Your task to perform on an android device: Open the Play Movies app and select the watchlist tab. Image 0: 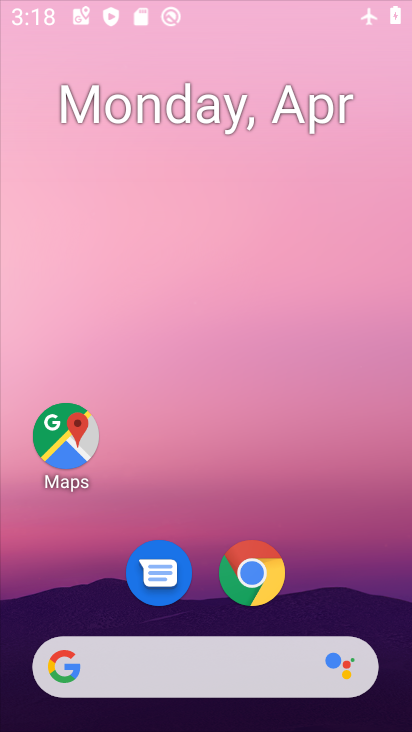
Step 0: click (351, 59)
Your task to perform on an android device: Open the Play Movies app and select the watchlist tab. Image 1: 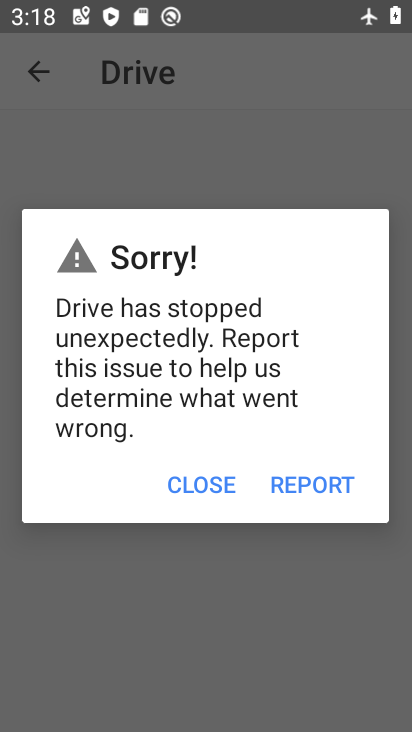
Step 1: press home button
Your task to perform on an android device: Open the Play Movies app and select the watchlist tab. Image 2: 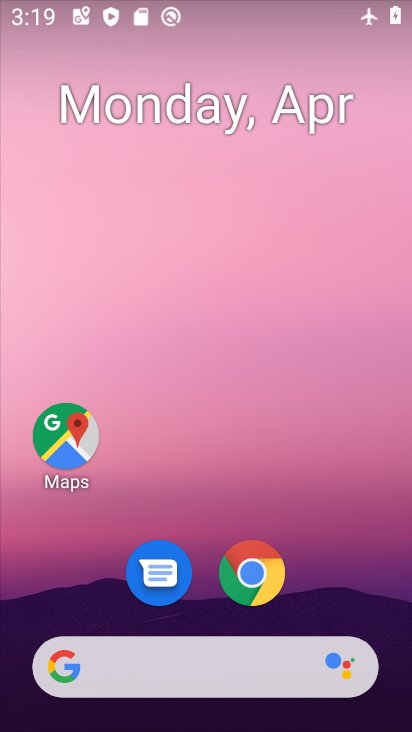
Step 2: drag from (365, 589) to (365, 74)
Your task to perform on an android device: Open the Play Movies app and select the watchlist tab. Image 3: 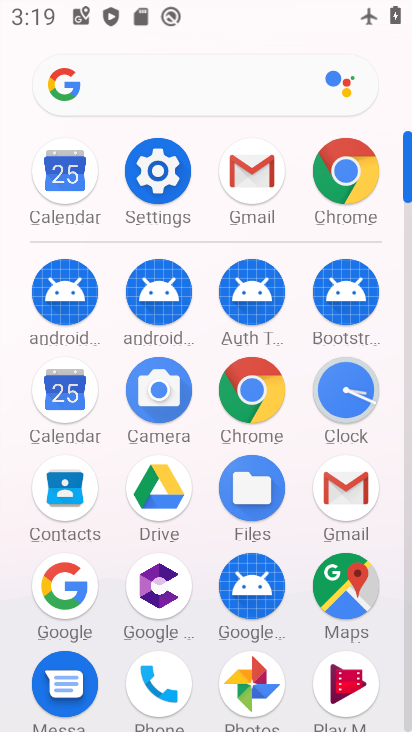
Step 3: drag from (195, 652) to (207, 402)
Your task to perform on an android device: Open the Play Movies app and select the watchlist tab. Image 4: 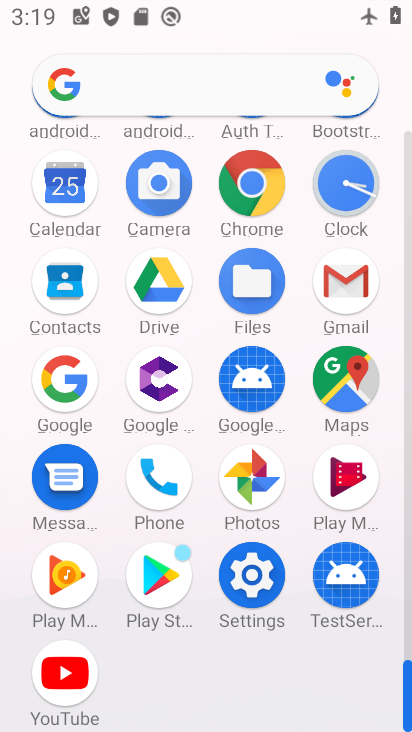
Step 4: click (347, 483)
Your task to perform on an android device: Open the Play Movies app and select the watchlist tab. Image 5: 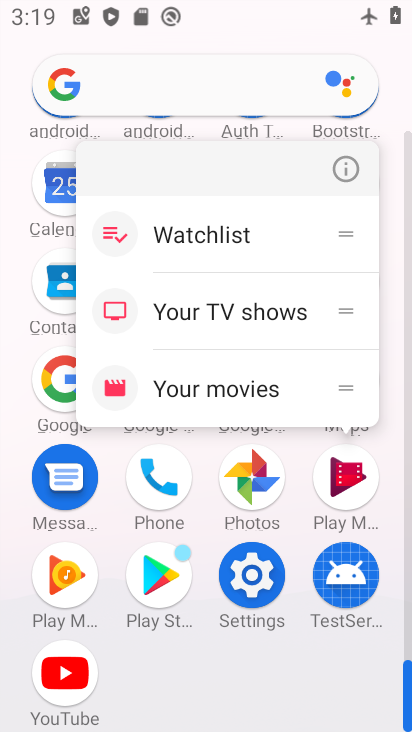
Step 5: click (351, 494)
Your task to perform on an android device: Open the Play Movies app and select the watchlist tab. Image 6: 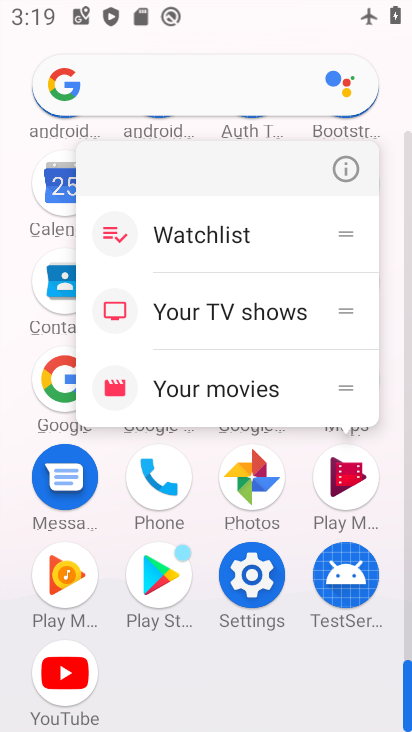
Step 6: click (196, 226)
Your task to perform on an android device: Open the Play Movies app and select the watchlist tab. Image 7: 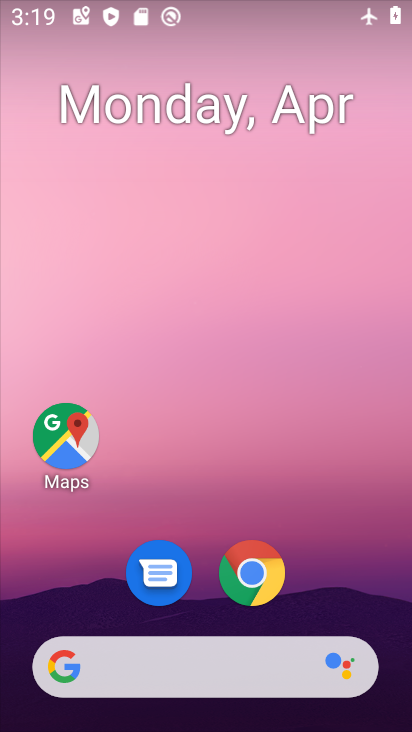
Step 7: drag from (342, 584) to (378, 108)
Your task to perform on an android device: Open the Play Movies app and select the watchlist tab. Image 8: 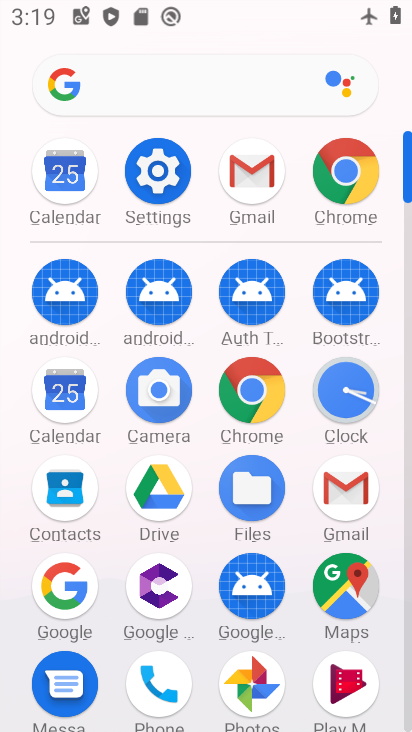
Step 8: drag from (199, 534) to (203, 278)
Your task to perform on an android device: Open the Play Movies app and select the watchlist tab. Image 9: 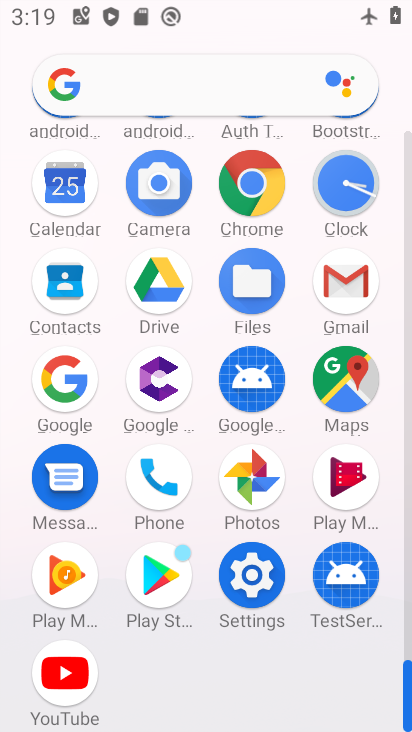
Step 9: click (340, 480)
Your task to perform on an android device: Open the Play Movies app and select the watchlist tab. Image 10: 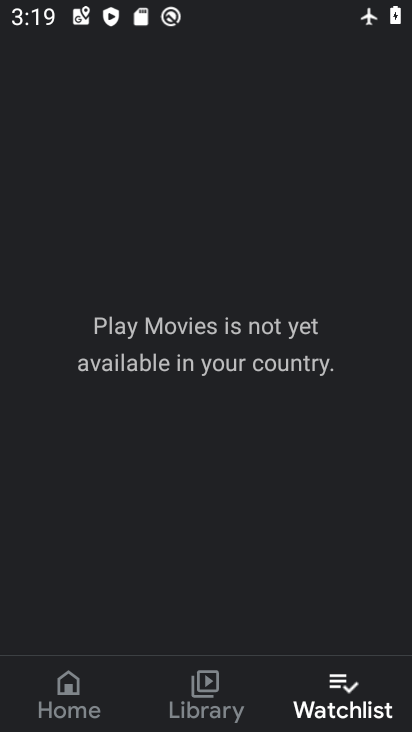
Step 10: task complete